Your task to perform on an android device: add a contact Image 0: 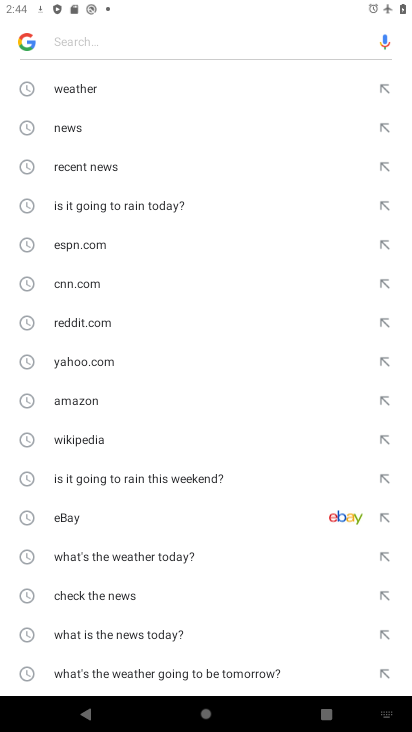
Step 0: press home button
Your task to perform on an android device: add a contact Image 1: 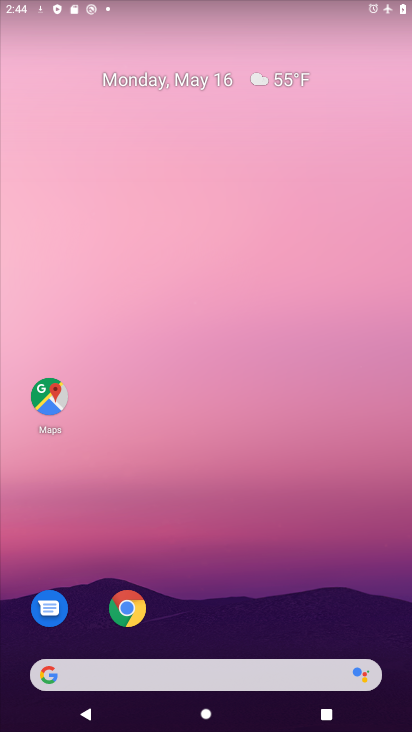
Step 1: drag from (255, 610) to (245, 192)
Your task to perform on an android device: add a contact Image 2: 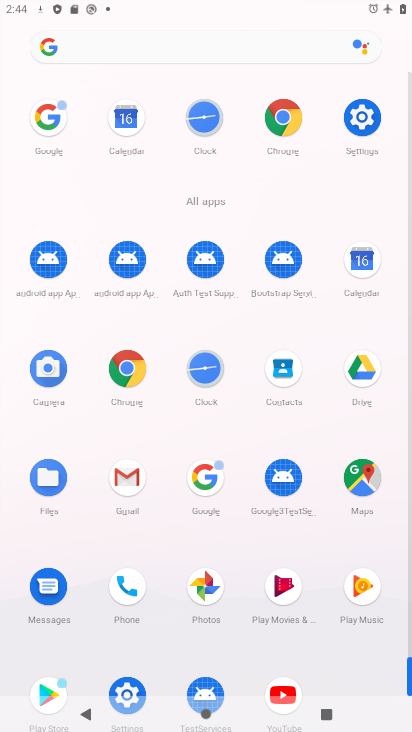
Step 2: click (286, 387)
Your task to perform on an android device: add a contact Image 3: 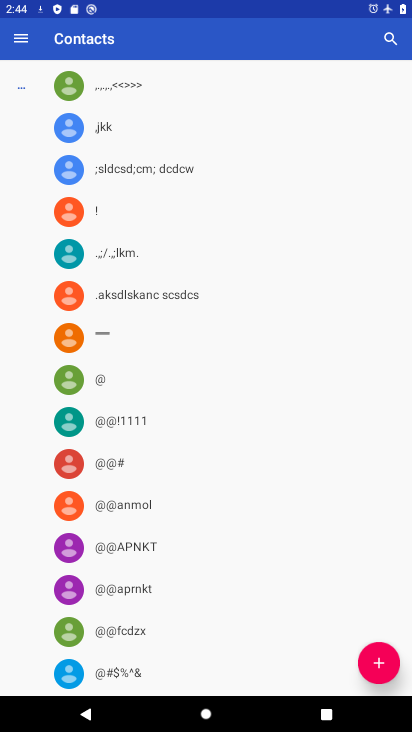
Step 3: click (373, 666)
Your task to perform on an android device: add a contact Image 4: 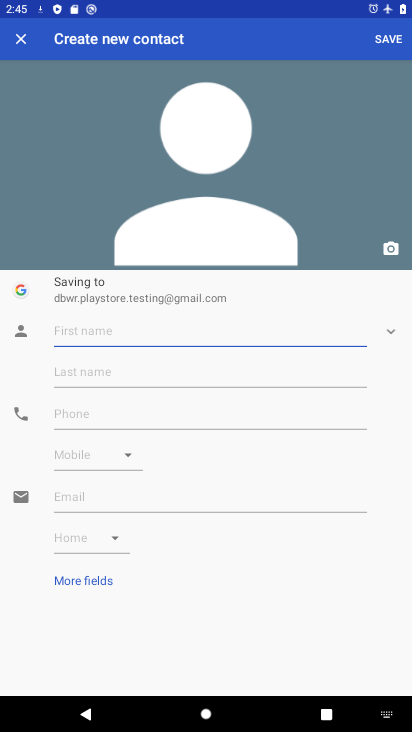
Step 4: type "sddth"
Your task to perform on an android device: add a contact Image 5: 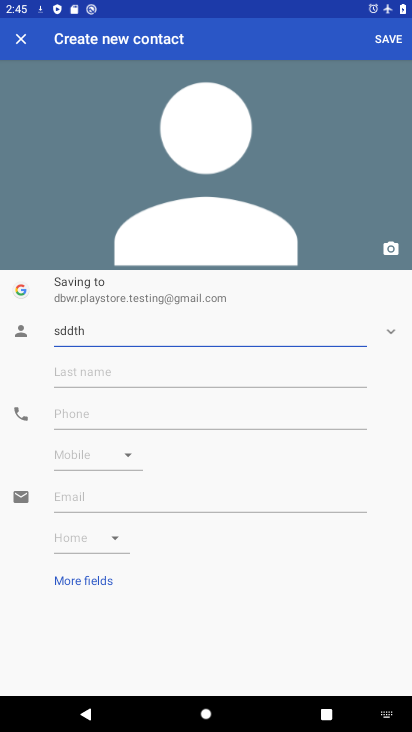
Step 5: click (107, 415)
Your task to perform on an android device: add a contact Image 6: 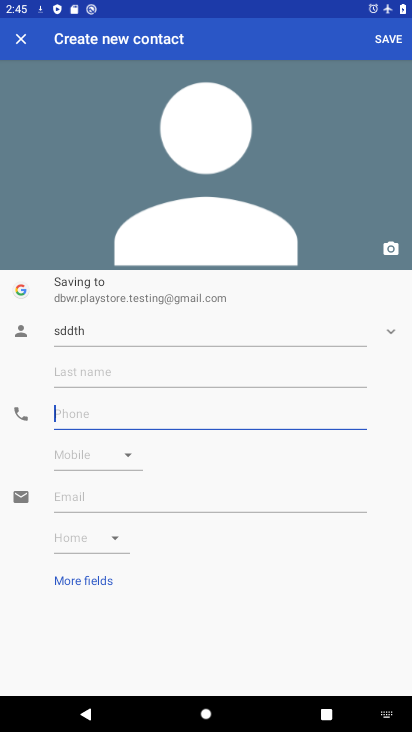
Step 6: type "86784557"
Your task to perform on an android device: add a contact Image 7: 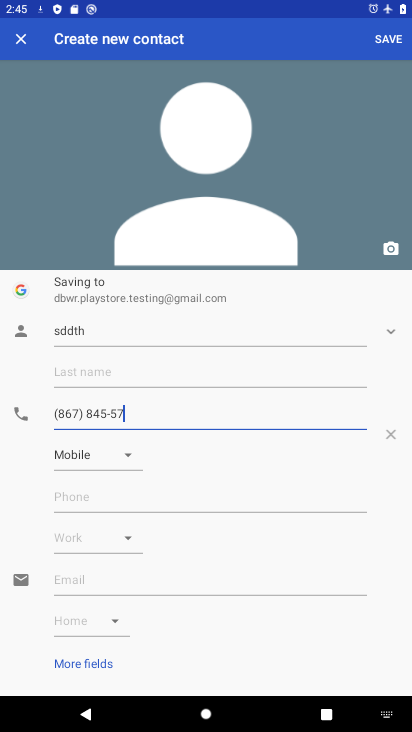
Step 7: click (394, 45)
Your task to perform on an android device: add a contact Image 8: 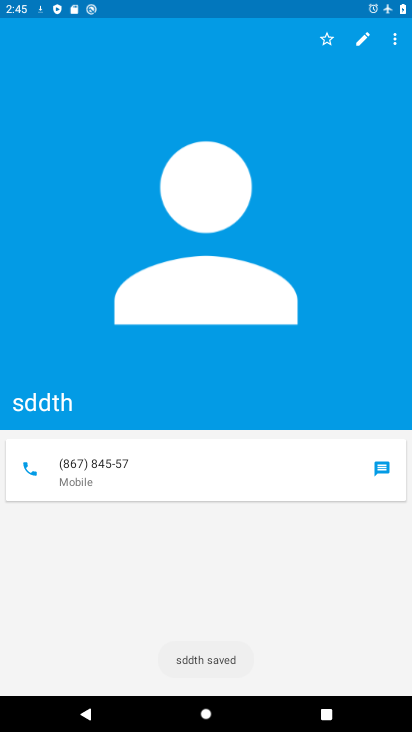
Step 8: task complete